Your task to perform on an android device: Open Google Maps Image 0: 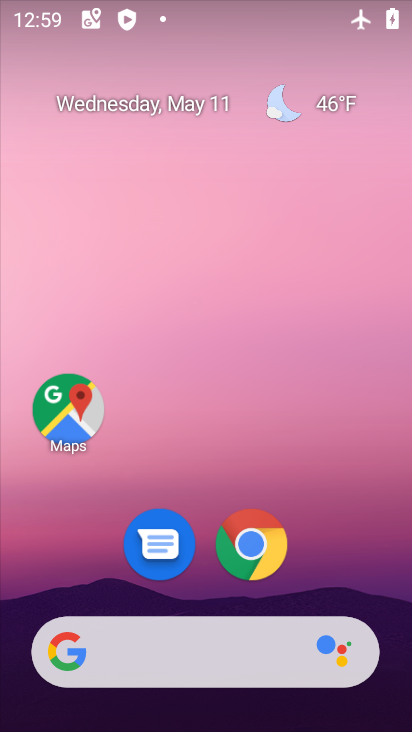
Step 0: click (69, 409)
Your task to perform on an android device: Open Google Maps Image 1: 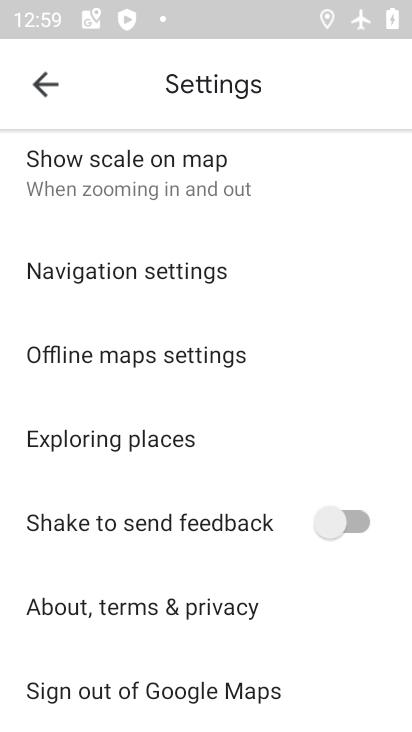
Step 1: task complete